Your task to perform on an android device: change the clock style Image 0: 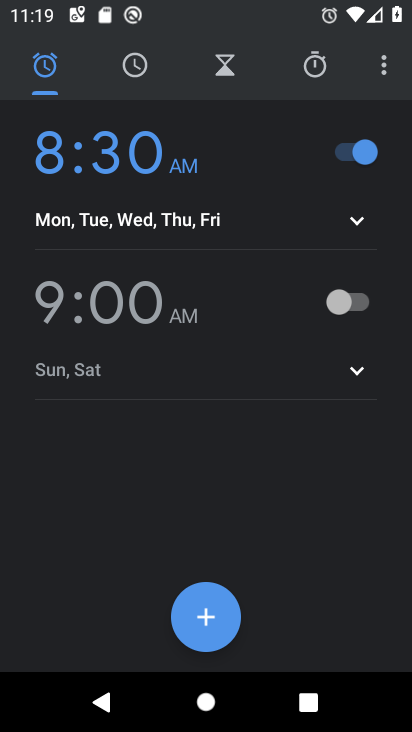
Step 0: press home button
Your task to perform on an android device: change the clock style Image 1: 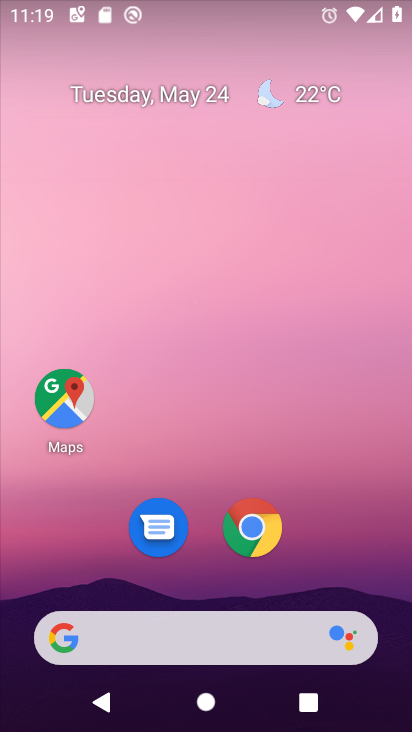
Step 1: drag from (210, 641) to (302, 70)
Your task to perform on an android device: change the clock style Image 2: 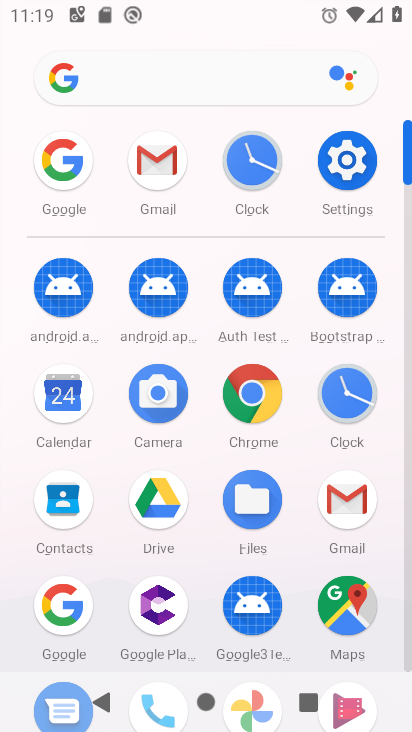
Step 2: click (337, 387)
Your task to perform on an android device: change the clock style Image 3: 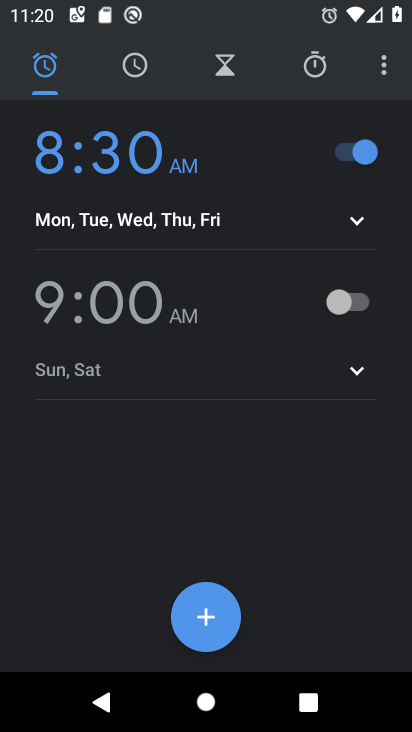
Step 3: click (383, 57)
Your task to perform on an android device: change the clock style Image 4: 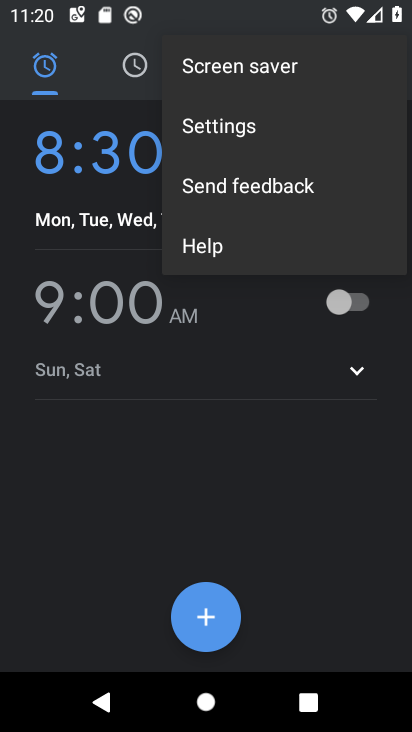
Step 4: click (195, 134)
Your task to perform on an android device: change the clock style Image 5: 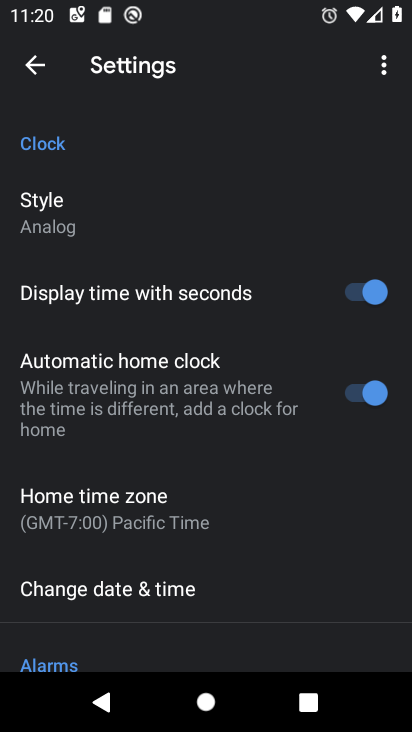
Step 5: click (68, 224)
Your task to perform on an android device: change the clock style Image 6: 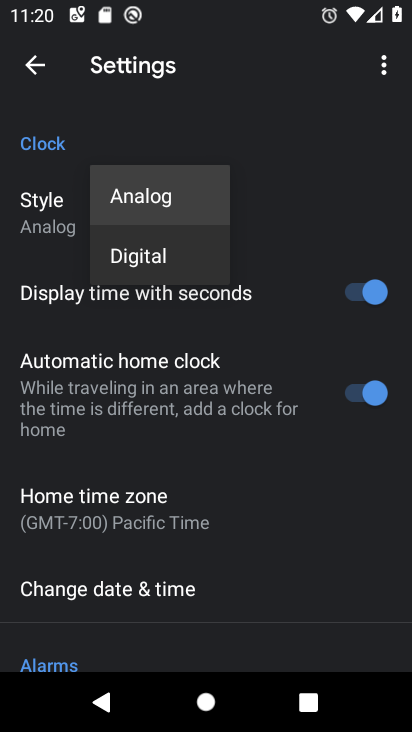
Step 6: click (146, 265)
Your task to perform on an android device: change the clock style Image 7: 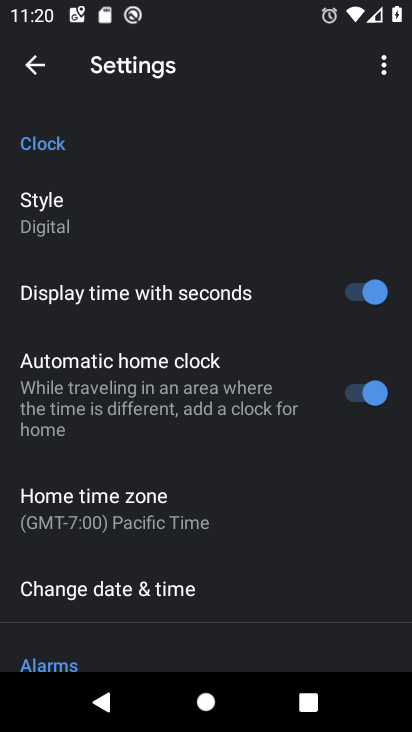
Step 7: task complete